Your task to perform on an android device: Search for vegetarian restaurants on Maps Image 0: 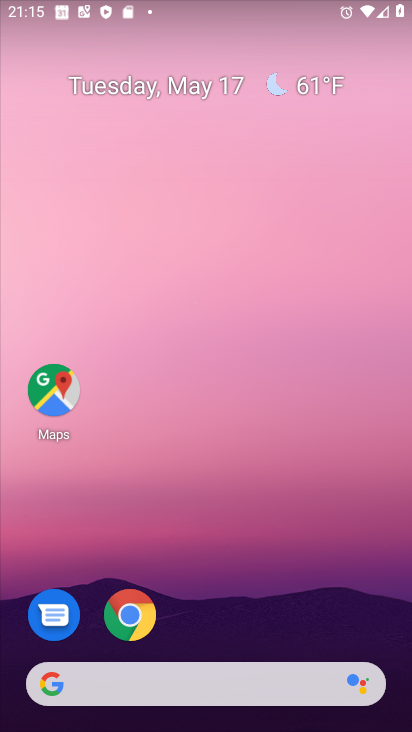
Step 0: drag from (251, 605) to (212, 144)
Your task to perform on an android device: Search for vegetarian restaurants on Maps Image 1: 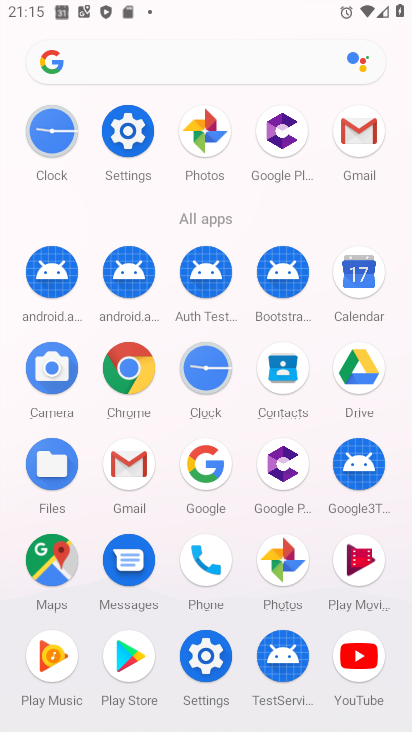
Step 1: click (53, 576)
Your task to perform on an android device: Search for vegetarian restaurants on Maps Image 2: 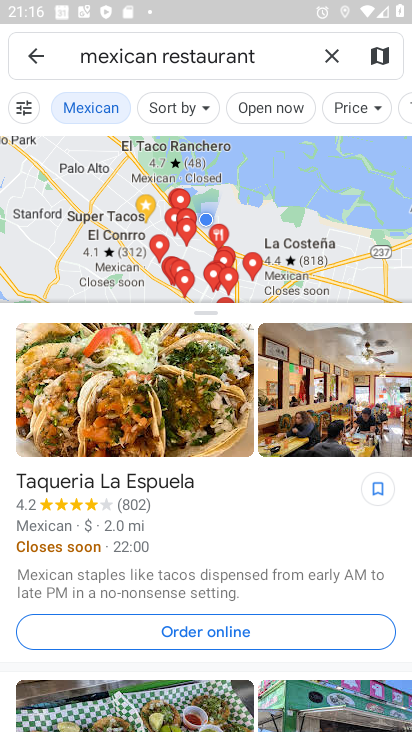
Step 2: click (330, 50)
Your task to perform on an android device: Search for vegetarian restaurants on Maps Image 3: 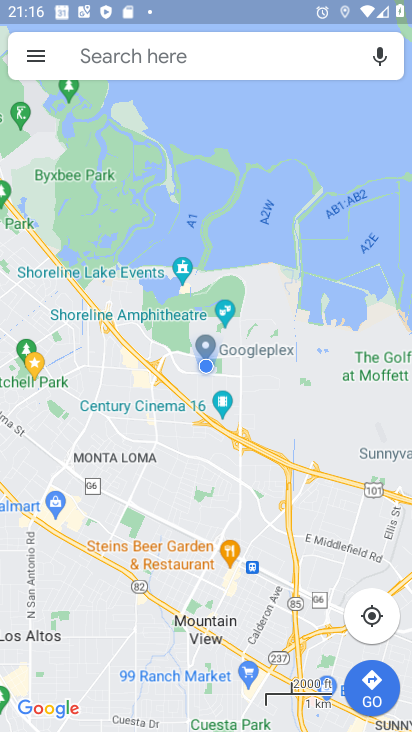
Step 3: click (216, 56)
Your task to perform on an android device: Search for vegetarian restaurants on Maps Image 4: 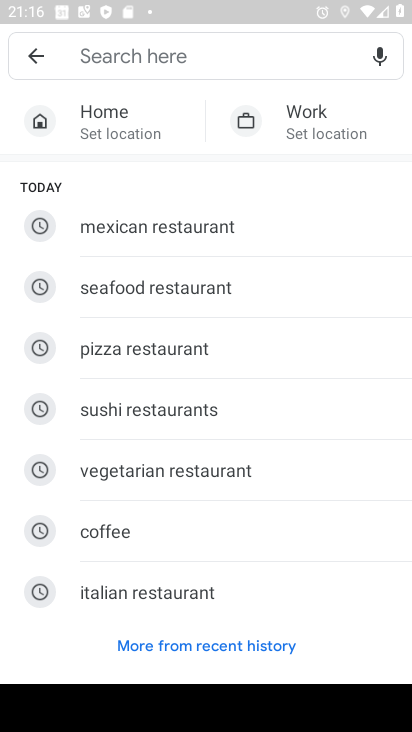
Step 4: click (198, 459)
Your task to perform on an android device: Search for vegetarian restaurants on Maps Image 5: 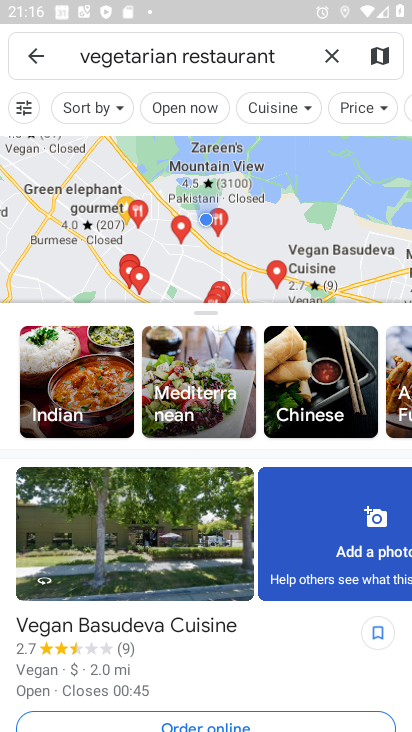
Step 5: task complete